Your task to perform on an android device: Open the Play Movies app and select the watchlist tab. Image 0: 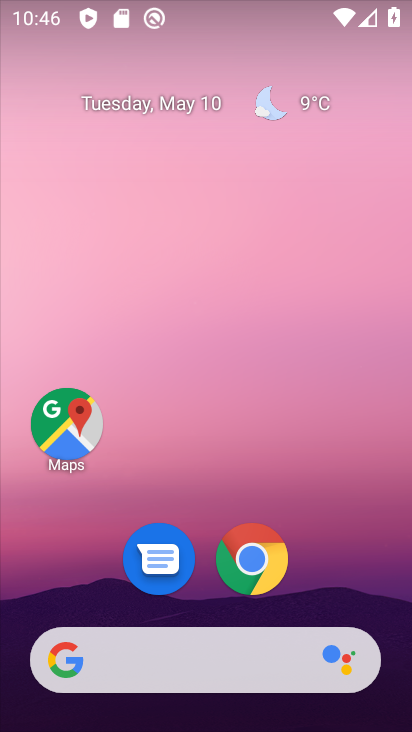
Step 0: click (255, 566)
Your task to perform on an android device: Open the Play Movies app and select the watchlist tab. Image 1: 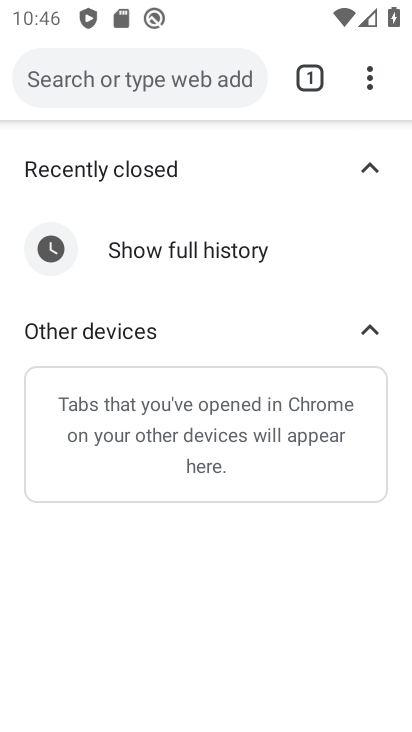
Step 1: press home button
Your task to perform on an android device: Open the Play Movies app and select the watchlist tab. Image 2: 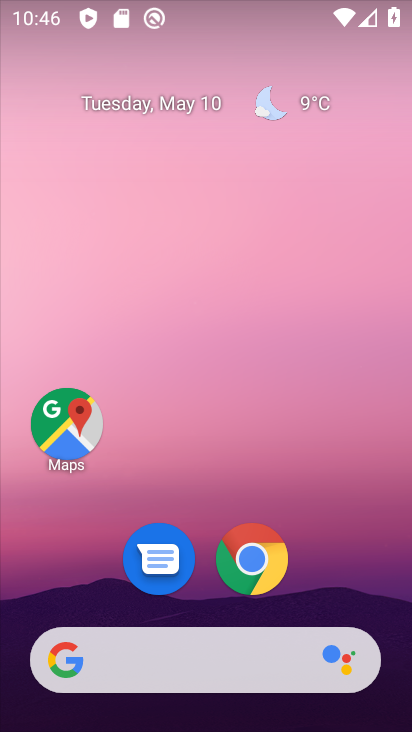
Step 2: drag from (310, 596) to (367, 9)
Your task to perform on an android device: Open the Play Movies app and select the watchlist tab. Image 3: 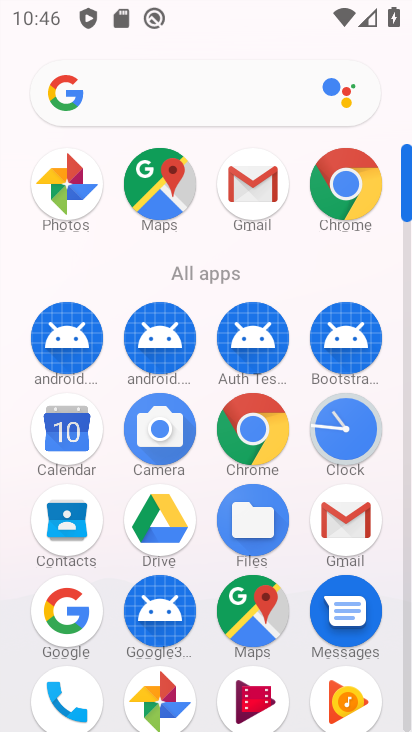
Step 3: click (246, 689)
Your task to perform on an android device: Open the Play Movies app and select the watchlist tab. Image 4: 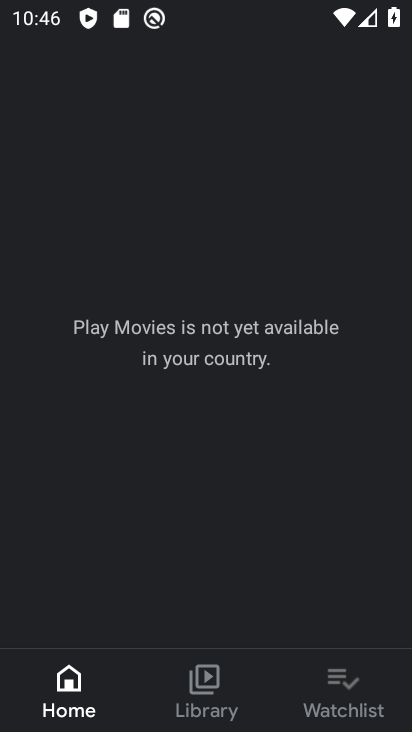
Step 4: click (338, 685)
Your task to perform on an android device: Open the Play Movies app and select the watchlist tab. Image 5: 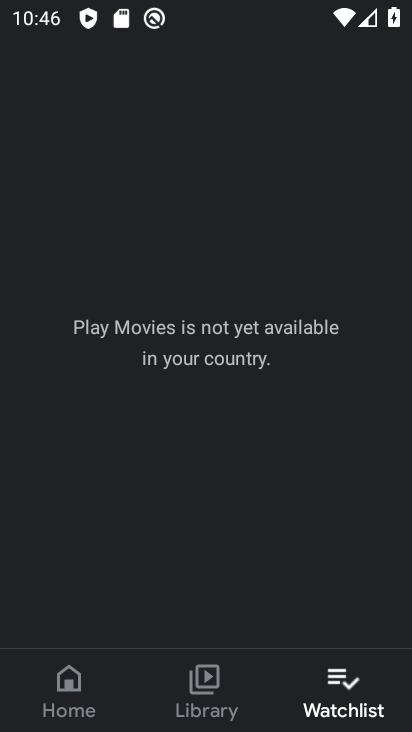
Step 5: task complete